Your task to perform on an android device: What's on my calendar today? Image 0: 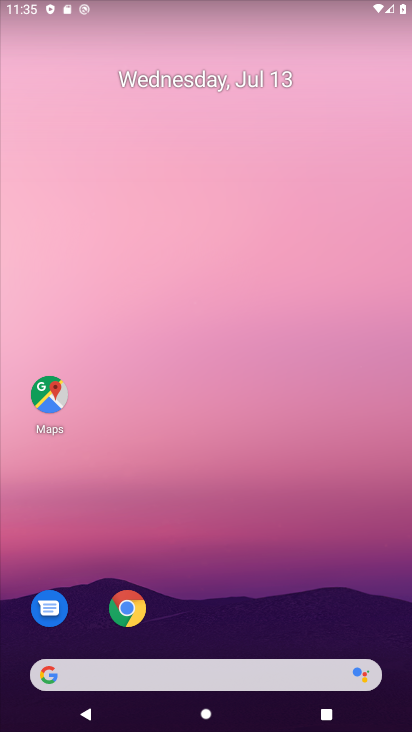
Step 0: drag from (260, 713) to (392, 282)
Your task to perform on an android device: What's on my calendar today? Image 1: 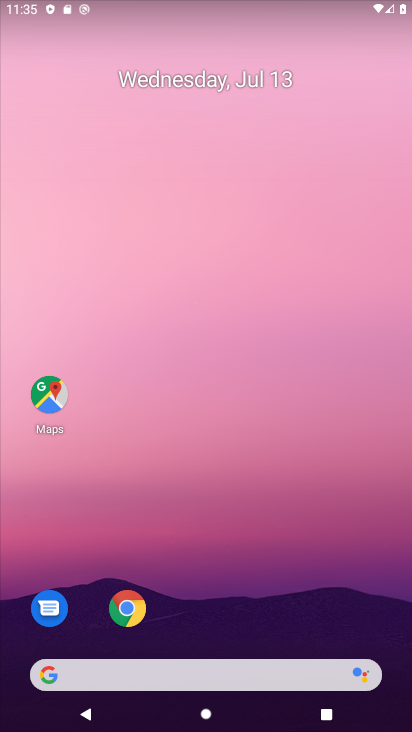
Step 1: drag from (279, 693) to (408, 305)
Your task to perform on an android device: What's on my calendar today? Image 2: 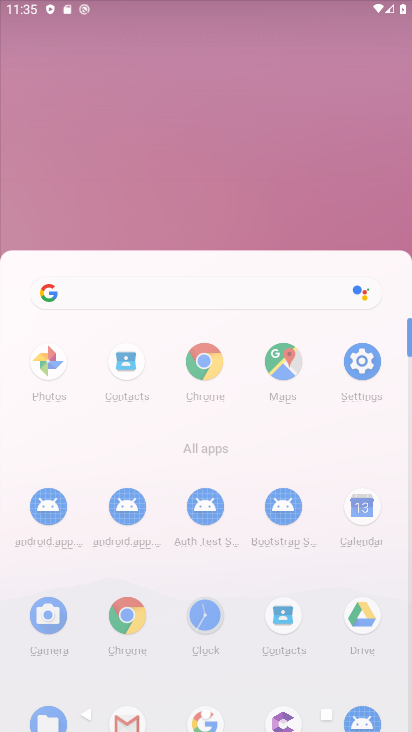
Step 2: click (366, 265)
Your task to perform on an android device: What's on my calendar today? Image 3: 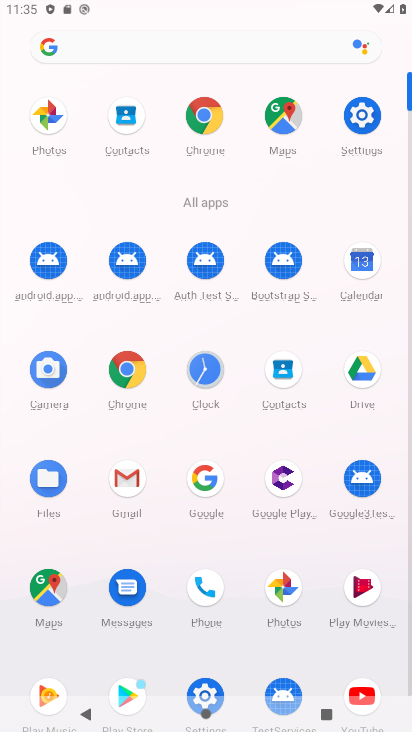
Step 3: click (366, 265)
Your task to perform on an android device: What's on my calendar today? Image 4: 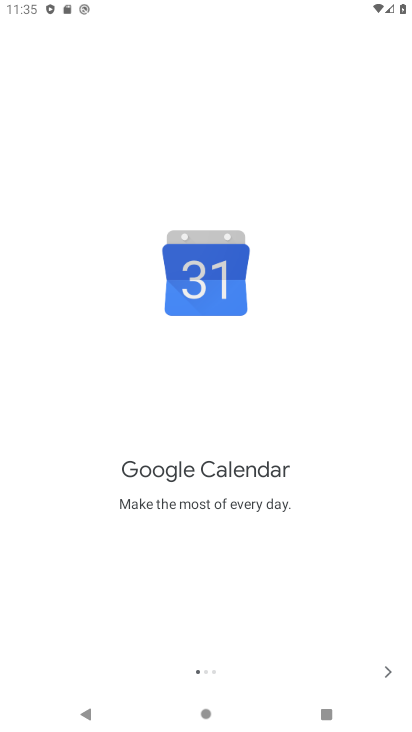
Step 4: click (389, 668)
Your task to perform on an android device: What's on my calendar today? Image 5: 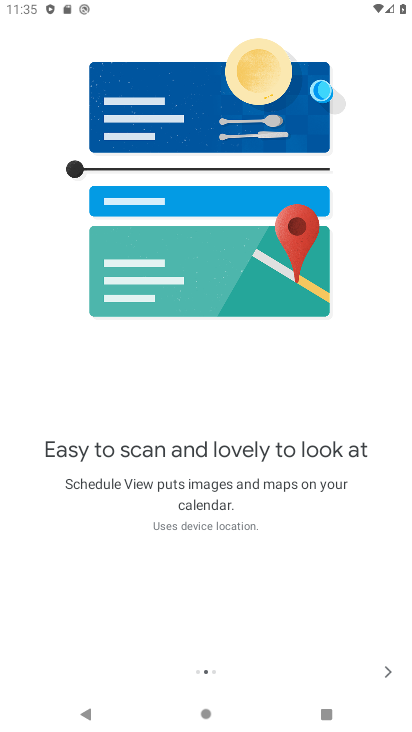
Step 5: click (389, 668)
Your task to perform on an android device: What's on my calendar today? Image 6: 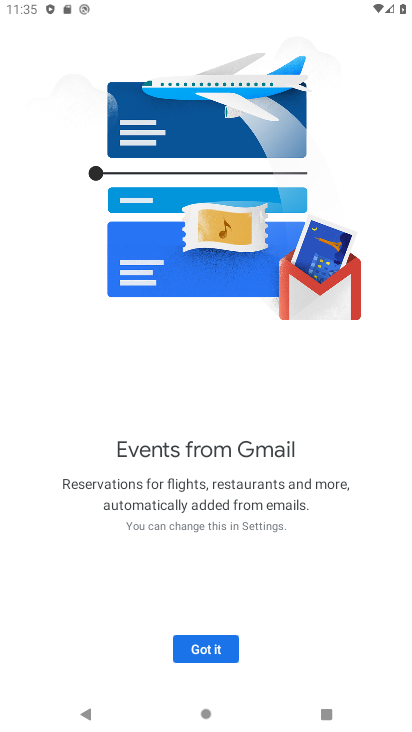
Step 6: click (204, 657)
Your task to perform on an android device: What's on my calendar today? Image 7: 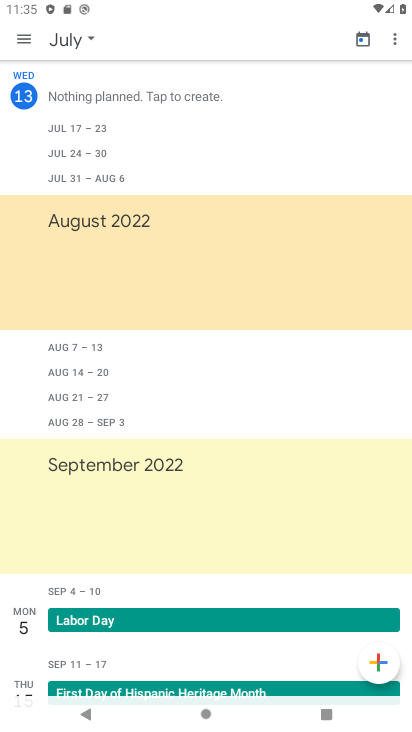
Step 7: click (70, 44)
Your task to perform on an android device: What's on my calendar today? Image 8: 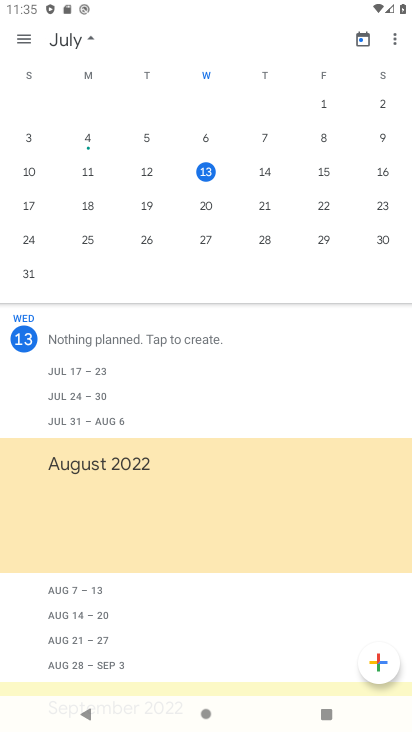
Step 8: task complete